Your task to perform on an android device: Search for Italian restaurants on Maps Image 0: 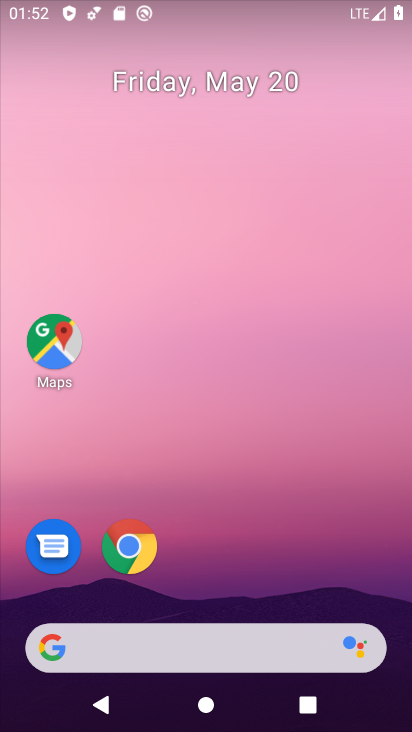
Step 0: drag from (215, 600) to (193, 14)
Your task to perform on an android device: Search for Italian restaurants on Maps Image 1: 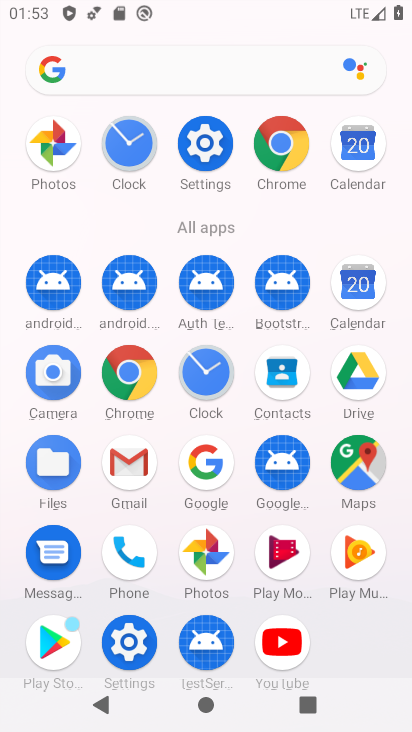
Step 1: click (370, 469)
Your task to perform on an android device: Search for Italian restaurants on Maps Image 2: 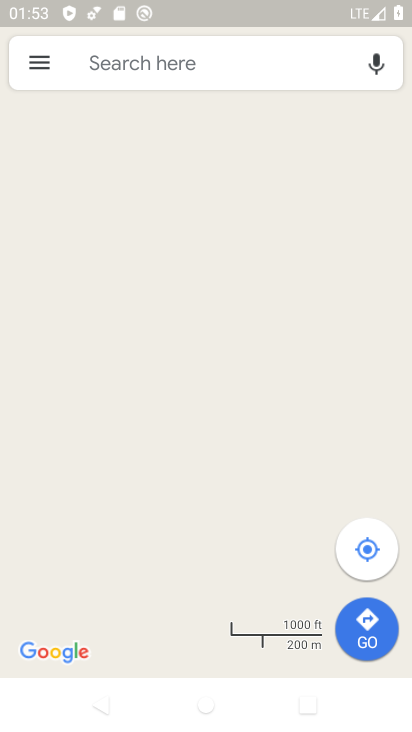
Step 2: click (100, 76)
Your task to perform on an android device: Search for Italian restaurants on Maps Image 3: 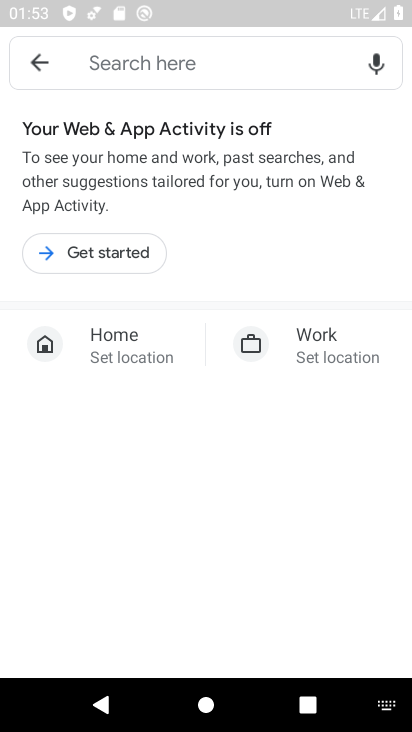
Step 3: click (130, 255)
Your task to perform on an android device: Search for Italian restaurants on Maps Image 4: 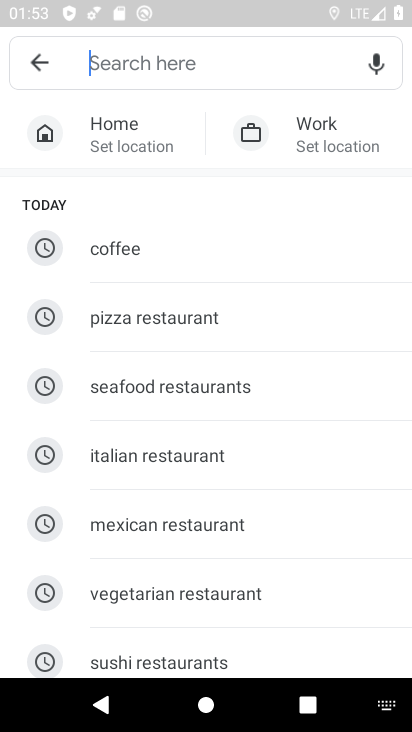
Step 4: click (110, 473)
Your task to perform on an android device: Search for Italian restaurants on Maps Image 5: 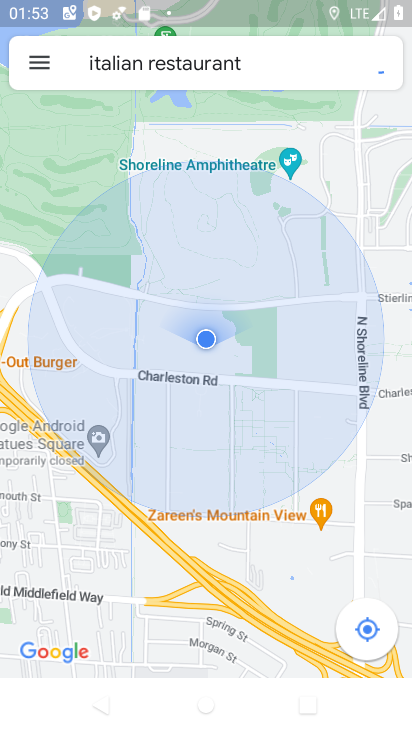
Step 5: task complete